Your task to perform on an android device: Open wifi settings Image 0: 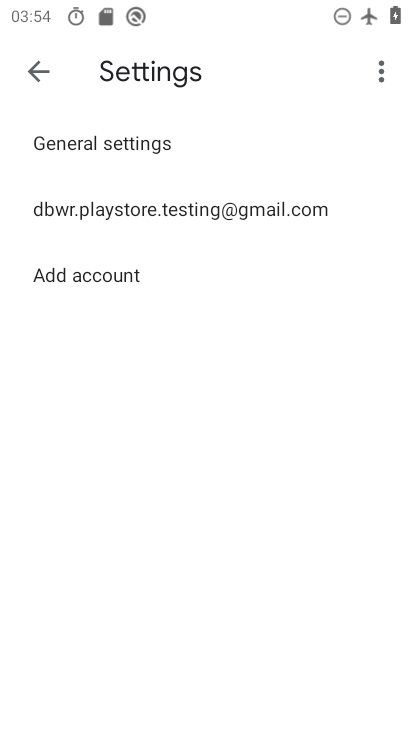
Step 0: press home button
Your task to perform on an android device: Open wifi settings Image 1: 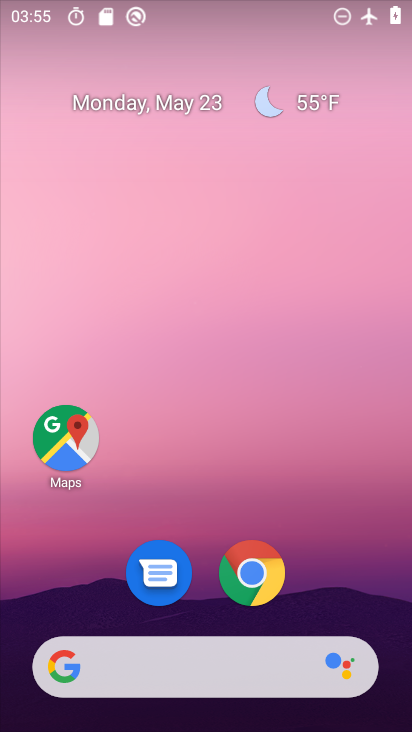
Step 1: drag from (344, 593) to (255, 173)
Your task to perform on an android device: Open wifi settings Image 2: 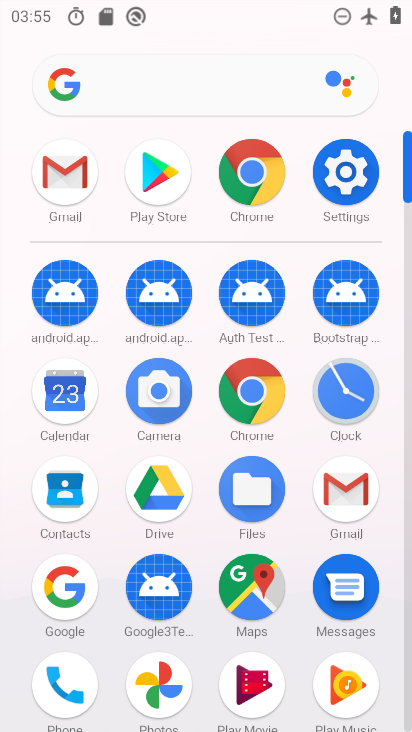
Step 2: click (358, 175)
Your task to perform on an android device: Open wifi settings Image 3: 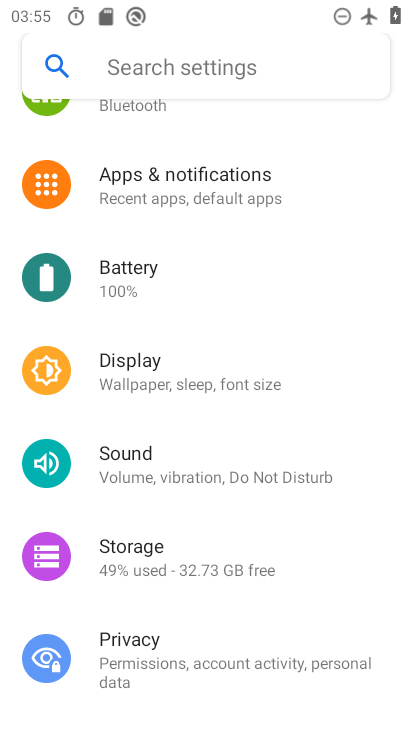
Step 3: drag from (284, 221) to (231, 534)
Your task to perform on an android device: Open wifi settings Image 4: 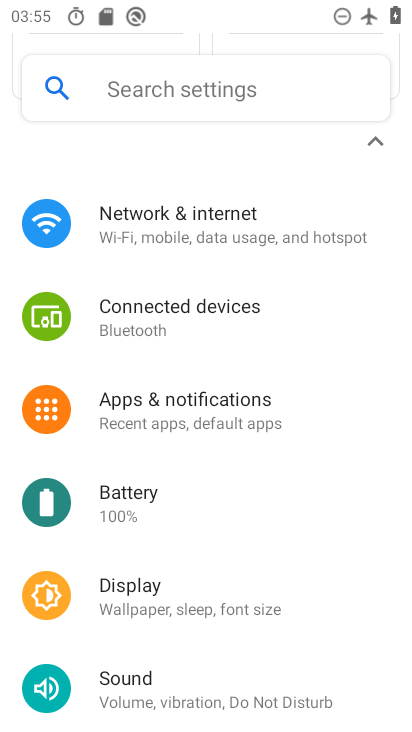
Step 4: click (189, 230)
Your task to perform on an android device: Open wifi settings Image 5: 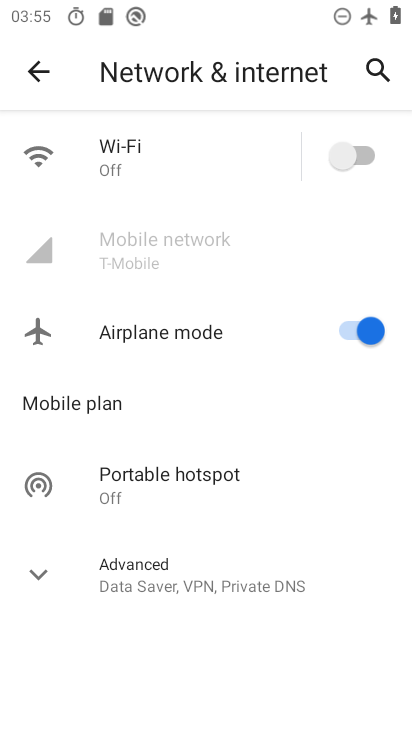
Step 5: click (132, 164)
Your task to perform on an android device: Open wifi settings Image 6: 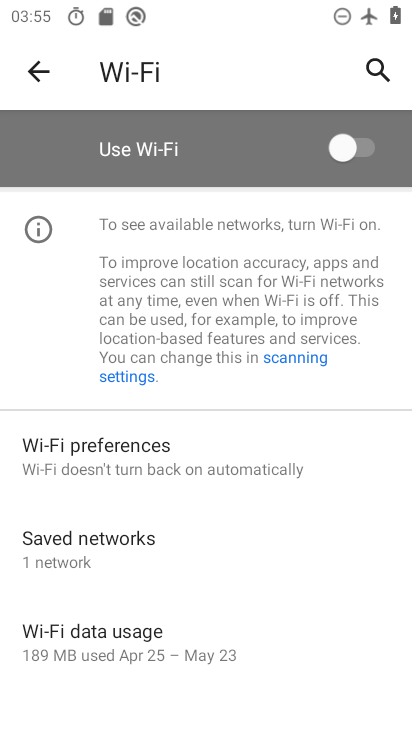
Step 6: task complete